Your task to perform on an android device: Open Chrome and go to settings Image 0: 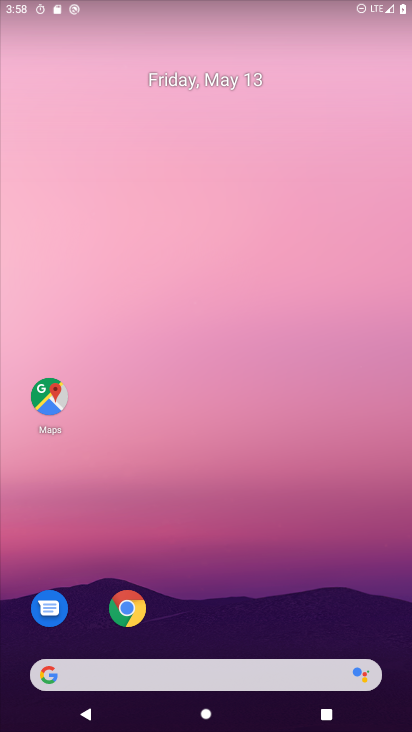
Step 0: press home button
Your task to perform on an android device: Open Chrome and go to settings Image 1: 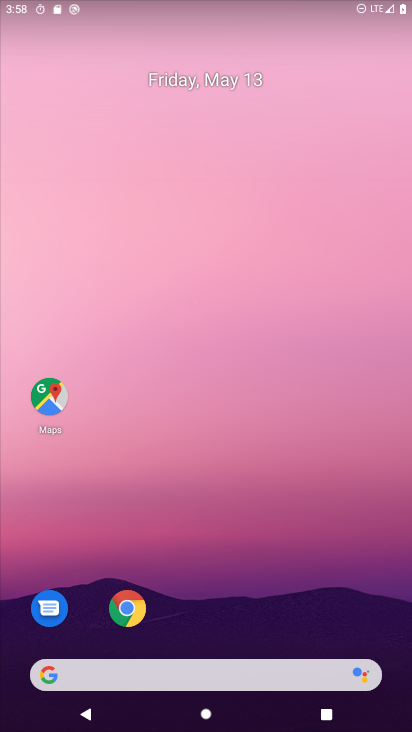
Step 1: drag from (283, 618) to (249, 266)
Your task to perform on an android device: Open Chrome and go to settings Image 2: 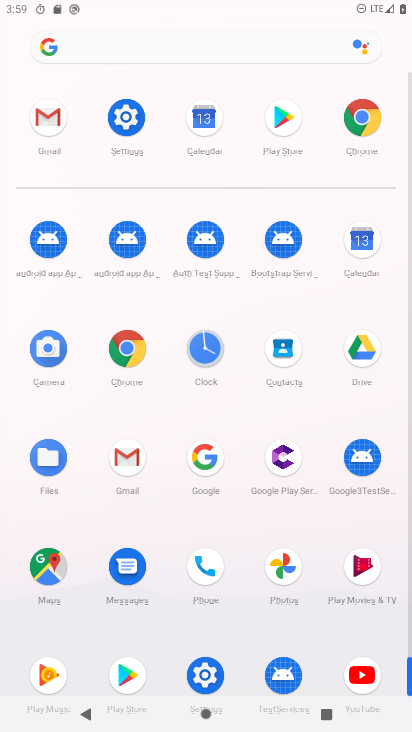
Step 2: click (360, 119)
Your task to perform on an android device: Open Chrome and go to settings Image 3: 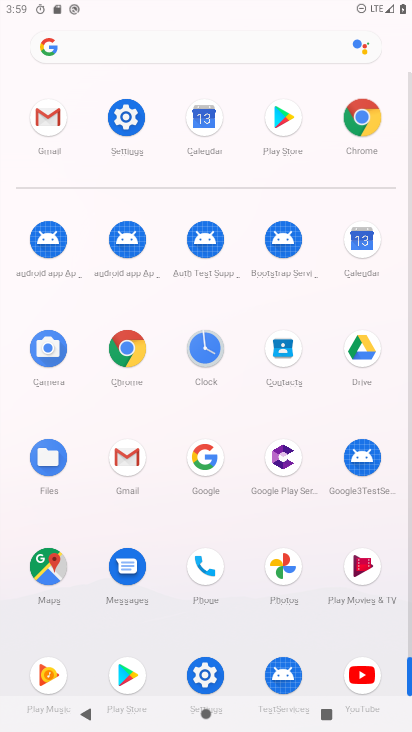
Step 3: click (360, 119)
Your task to perform on an android device: Open Chrome and go to settings Image 4: 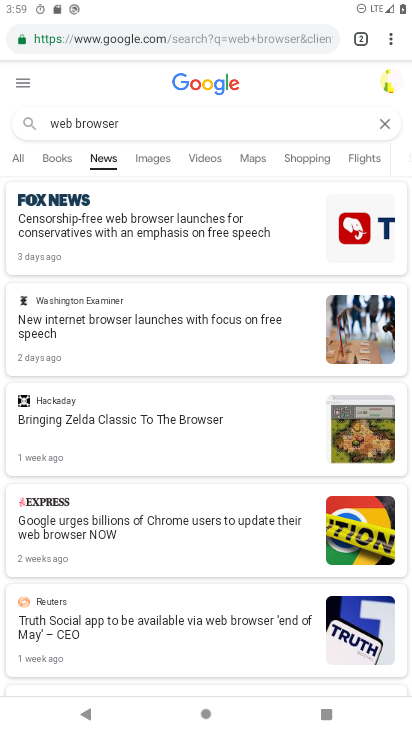
Step 4: task complete